Your task to perform on an android device: Go to ESPN.com Image 0: 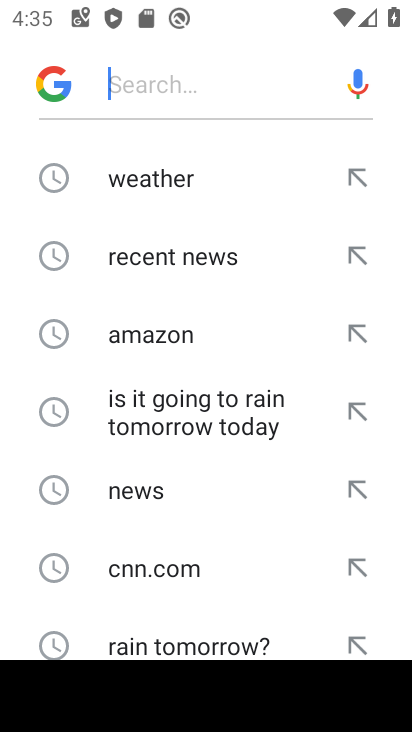
Step 0: press back button
Your task to perform on an android device: Go to ESPN.com Image 1: 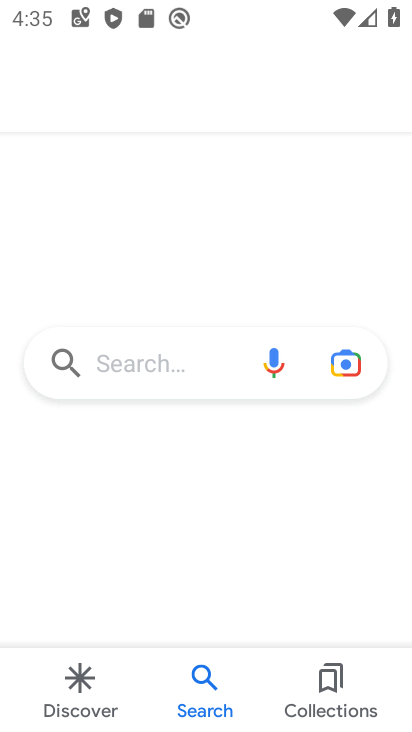
Step 1: press back button
Your task to perform on an android device: Go to ESPN.com Image 2: 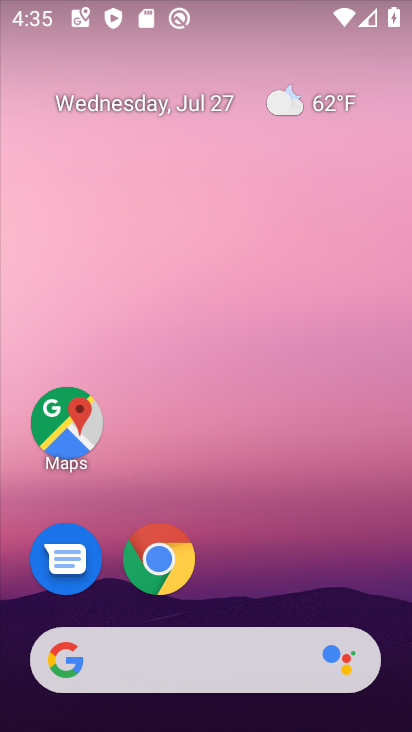
Step 2: click (149, 558)
Your task to perform on an android device: Go to ESPN.com Image 3: 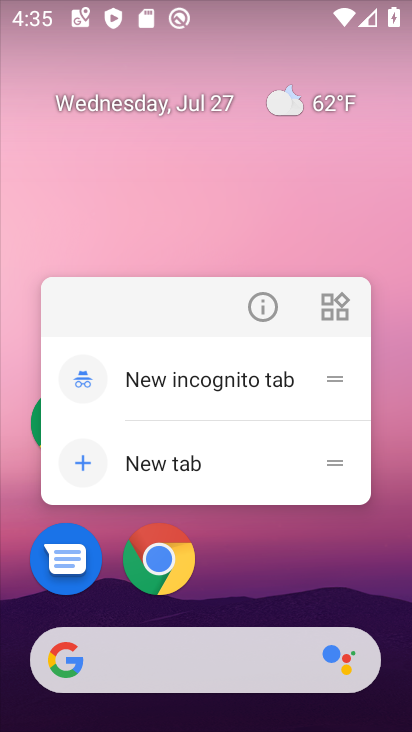
Step 3: click (156, 559)
Your task to perform on an android device: Go to ESPN.com Image 4: 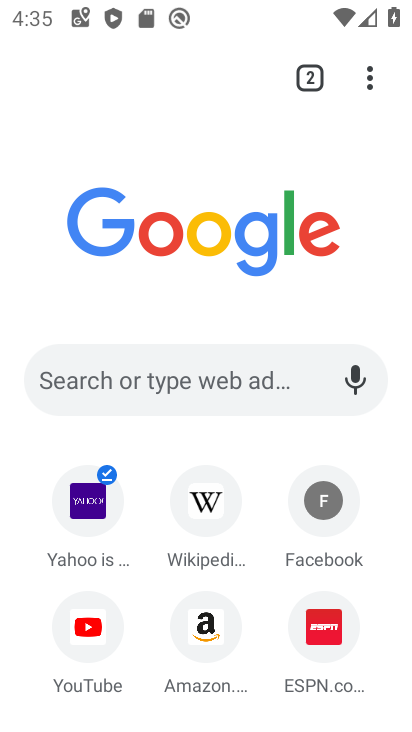
Step 4: click (302, 619)
Your task to perform on an android device: Go to ESPN.com Image 5: 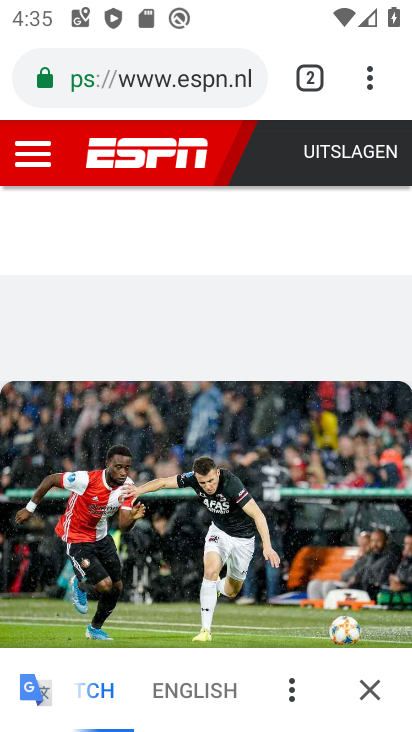
Step 5: task complete